Your task to perform on an android device: Is it going to rain this weekend? Image 0: 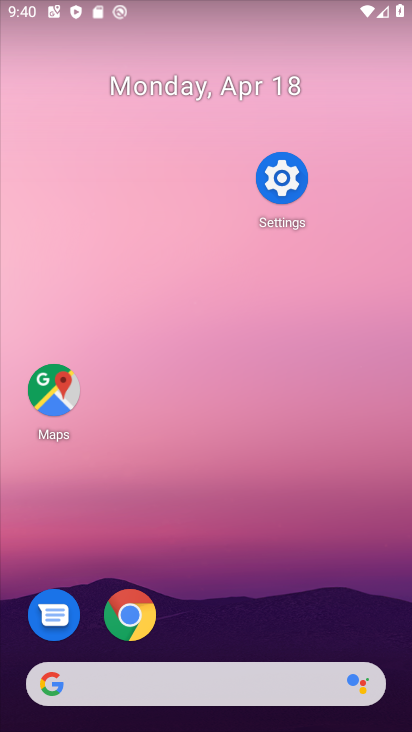
Step 0: drag from (42, 305) to (342, 570)
Your task to perform on an android device: Is it going to rain this weekend? Image 1: 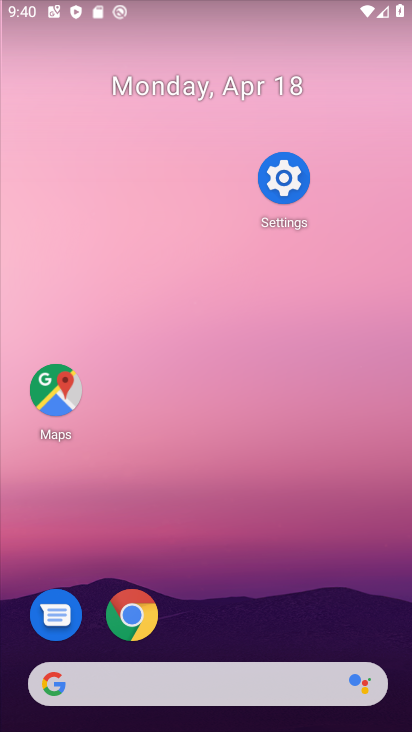
Step 1: drag from (53, 323) to (254, 81)
Your task to perform on an android device: Is it going to rain this weekend? Image 2: 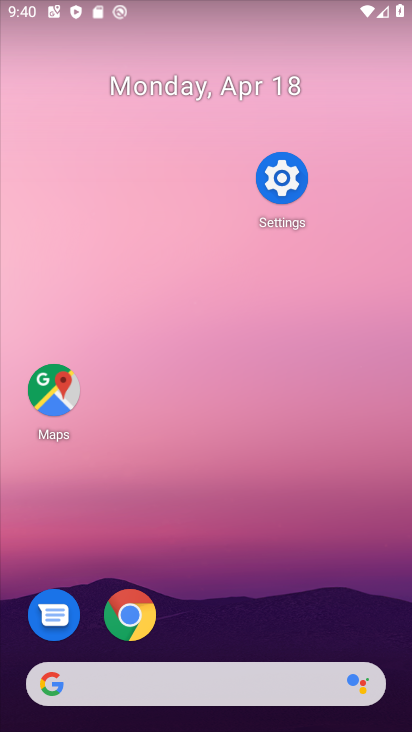
Step 2: drag from (264, 85) to (269, 230)
Your task to perform on an android device: Is it going to rain this weekend? Image 3: 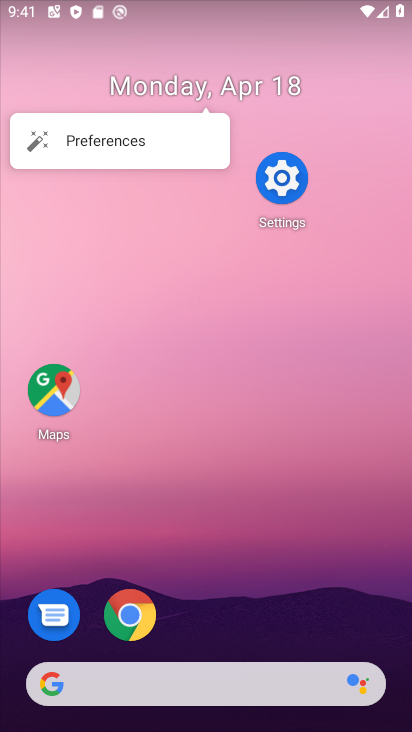
Step 3: drag from (267, 86) to (212, 499)
Your task to perform on an android device: Is it going to rain this weekend? Image 4: 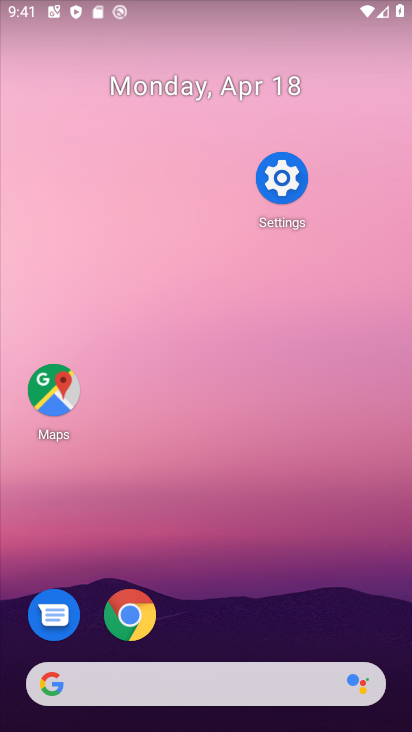
Step 4: drag from (35, 291) to (287, 358)
Your task to perform on an android device: Is it going to rain this weekend? Image 5: 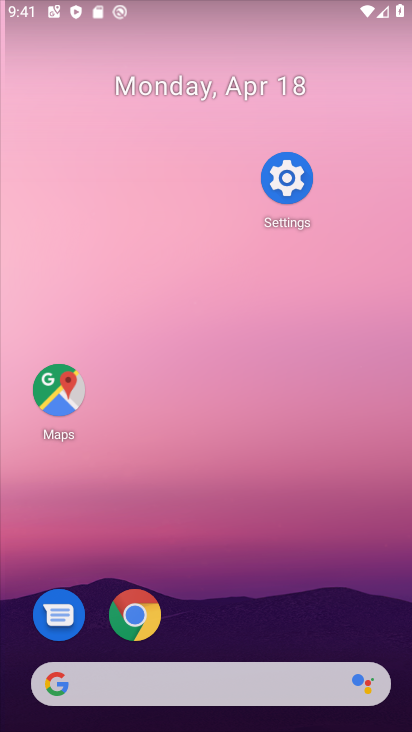
Step 5: drag from (59, 286) to (408, 342)
Your task to perform on an android device: Is it going to rain this weekend? Image 6: 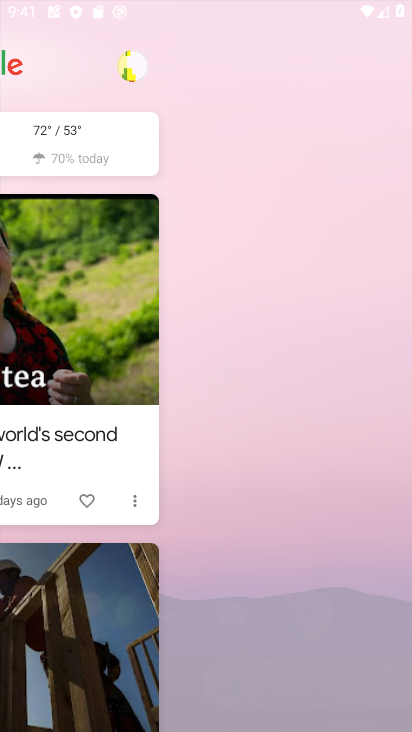
Step 6: drag from (127, 273) to (379, 299)
Your task to perform on an android device: Is it going to rain this weekend? Image 7: 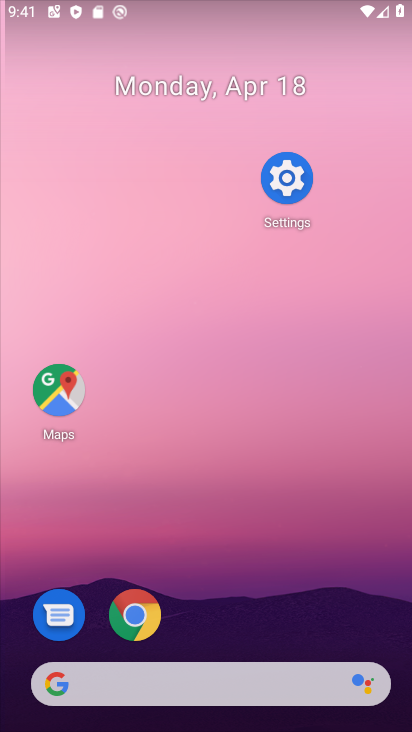
Step 7: drag from (102, 304) to (400, 316)
Your task to perform on an android device: Is it going to rain this weekend? Image 8: 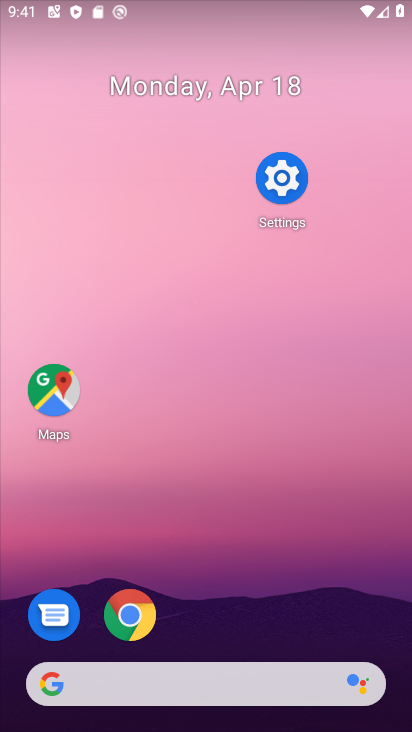
Step 8: drag from (34, 181) to (376, 263)
Your task to perform on an android device: Is it going to rain this weekend? Image 9: 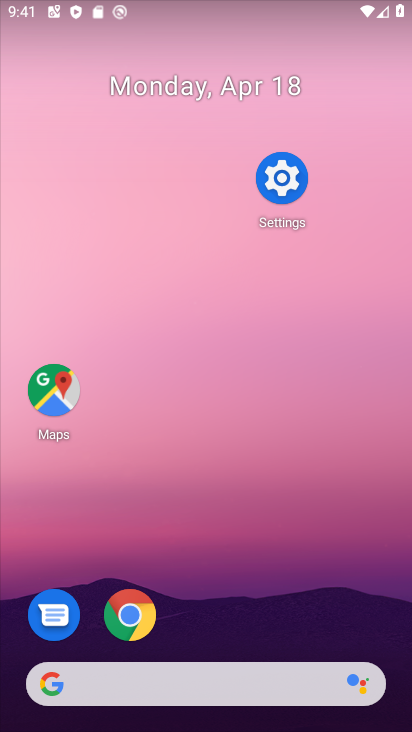
Step 9: drag from (34, 235) to (407, 442)
Your task to perform on an android device: Is it going to rain this weekend? Image 10: 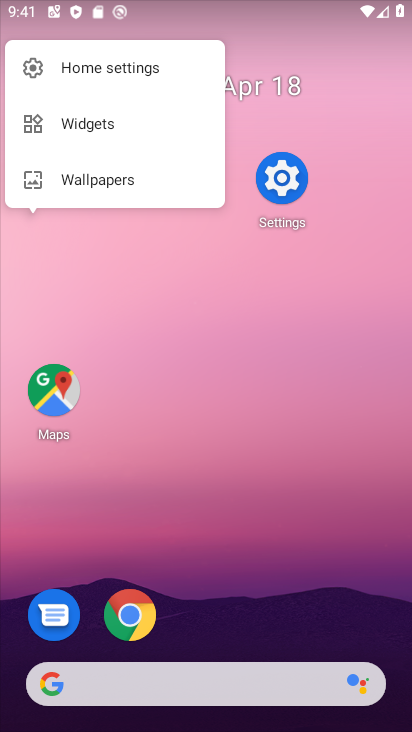
Step 10: click (299, 225)
Your task to perform on an android device: Is it going to rain this weekend? Image 11: 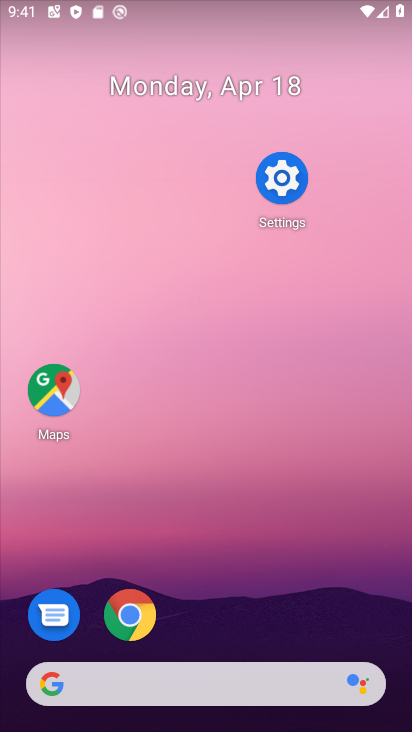
Step 11: drag from (302, 223) to (404, 242)
Your task to perform on an android device: Is it going to rain this weekend? Image 12: 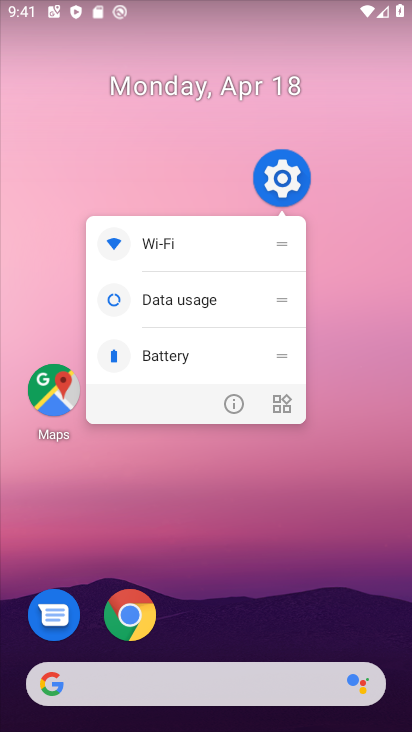
Step 12: click (409, 558)
Your task to perform on an android device: Is it going to rain this weekend? Image 13: 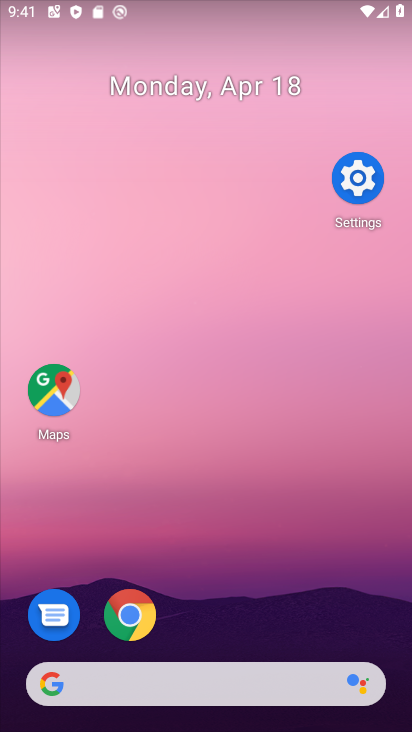
Step 13: press home button
Your task to perform on an android device: Is it going to rain this weekend? Image 14: 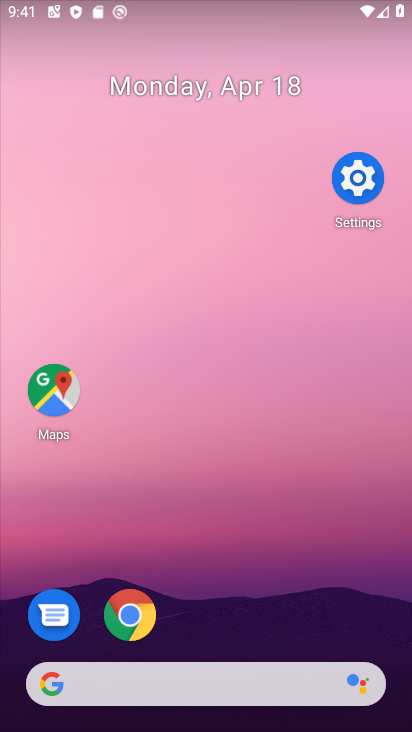
Step 14: drag from (36, 275) to (373, 385)
Your task to perform on an android device: Is it going to rain this weekend? Image 15: 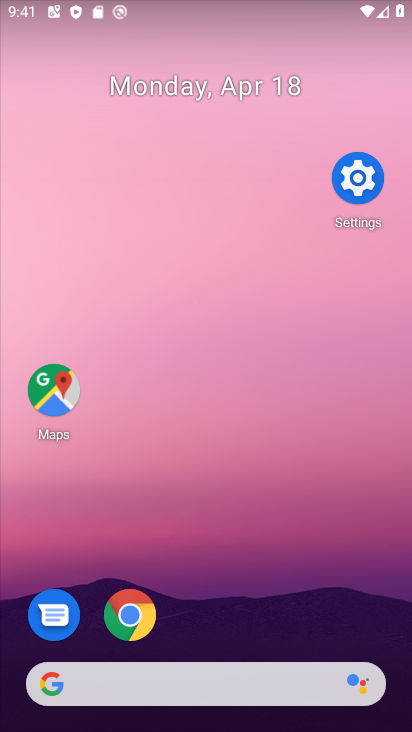
Step 15: click (365, 247)
Your task to perform on an android device: Is it going to rain this weekend? Image 16: 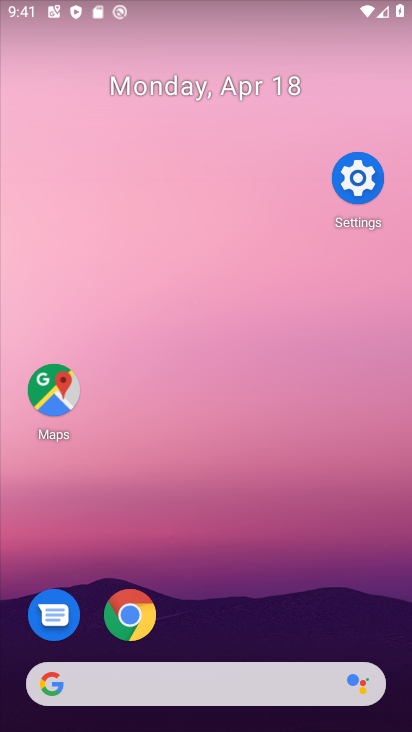
Step 16: drag from (21, 210) to (377, 258)
Your task to perform on an android device: Is it going to rain this weekend? Image 17: 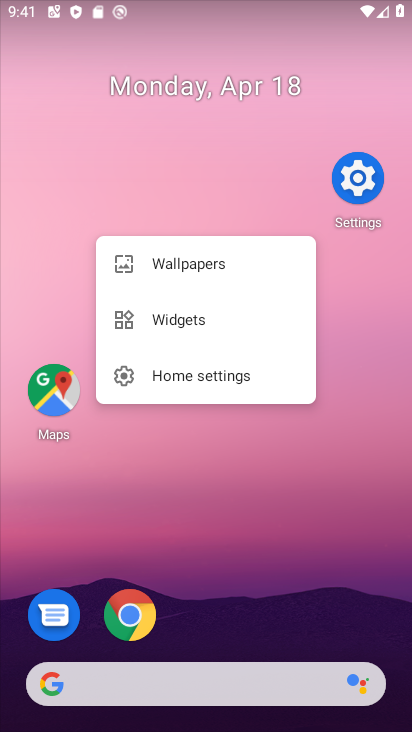
Step 17: drag from (37, 225) to (395, 229)
Your task to perform on an android device: Is it going to rain this weekend? Image 18: 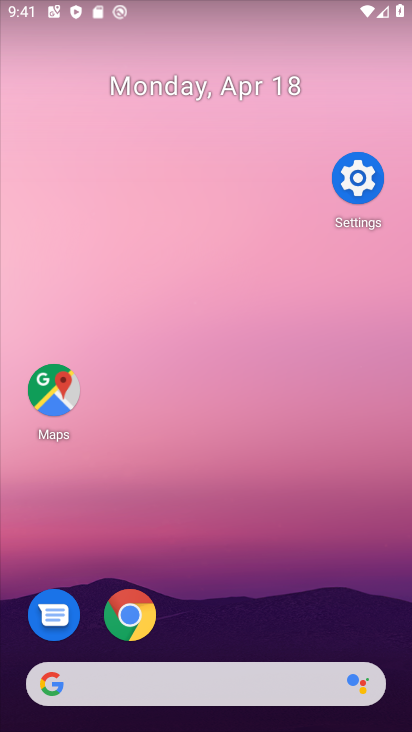
Step 18: drag from (40, 231) to (405, 277)
Your task to perform on an android device: Is it going to rain this weekend? Image 19: 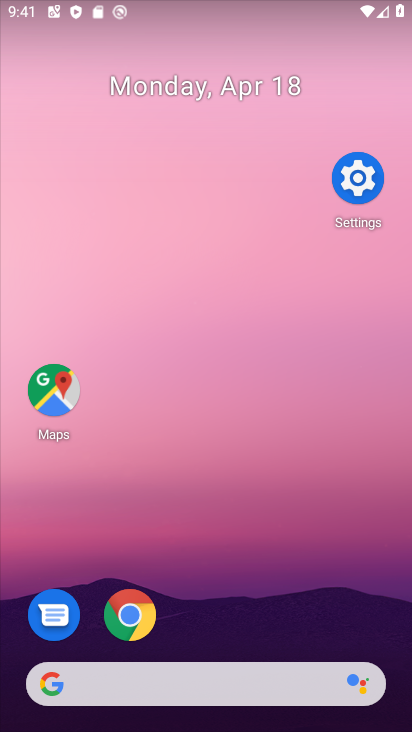
Step 19: drag from (44, 227) to (323, 285)
Your task to perform on an android device: Is it going to rain this weekend? Image 20: 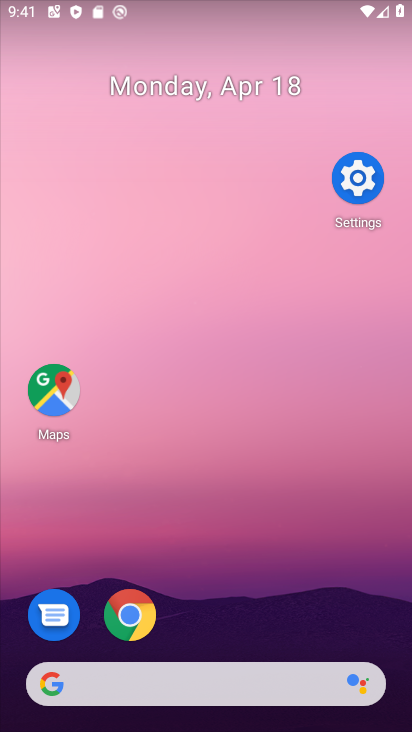
Step 20: drag from (18, 234) to (354, 296)
Your task to perform on an android device: Is it going to rain this weekend? Image 21: 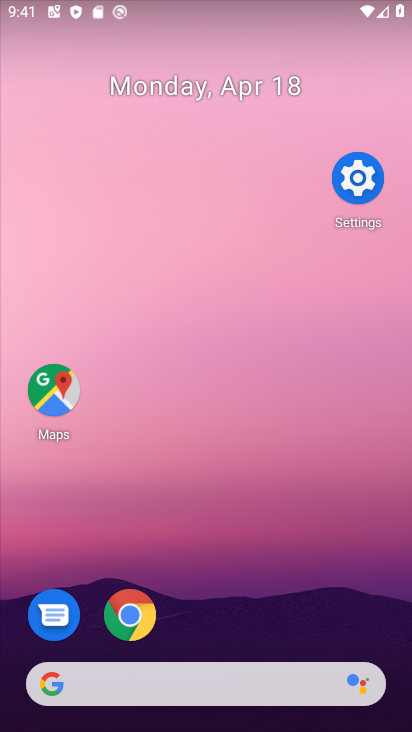
Step 21: drag from (75, 270) to (398, 293)
Your task to perform on an android device: Is it going to rain this weekend? Image 22: 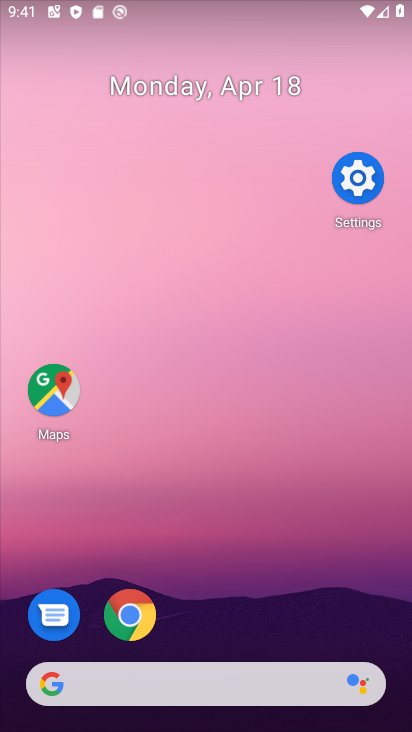
Step 22: drag from (46, 313) to (399, 247)
Your task to perform on an android device: Is it going to rain this weekend? Image 23: 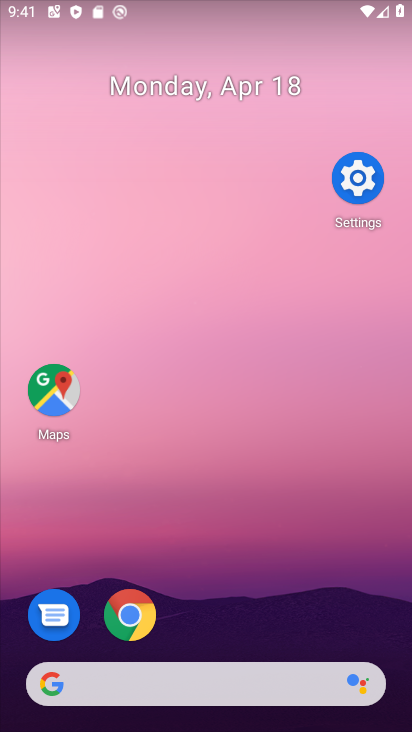
Step 23: drag from (16, 267) to (404, 246)
Your task to perform on an android device: Is it going to rain this weekend? Image 24: 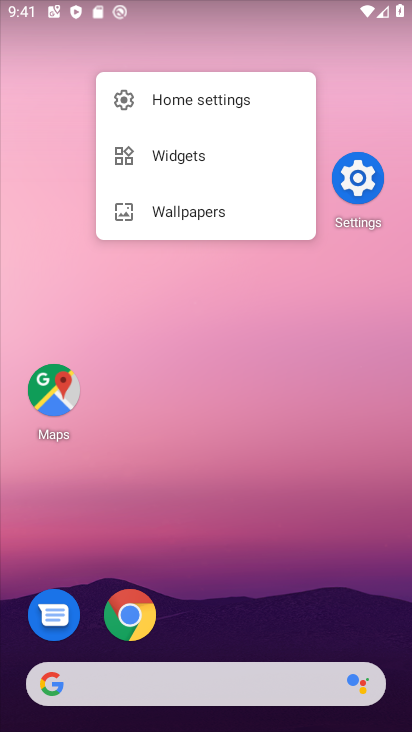
Step 24: drag from (34, 270) to (346, 254)
Your task to perform on an android device: Is it going to rain this weekend? Image 25: 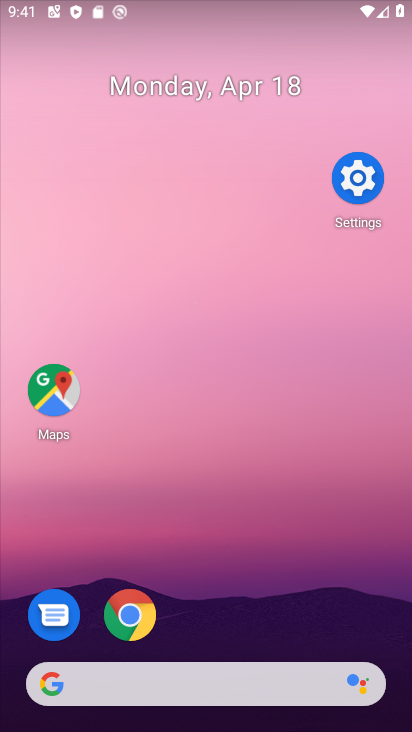
Step 25: drag from (113, 505) to (105, 157)
Your task to perform on an android device: Is it going to rain this weekend? Image 26: 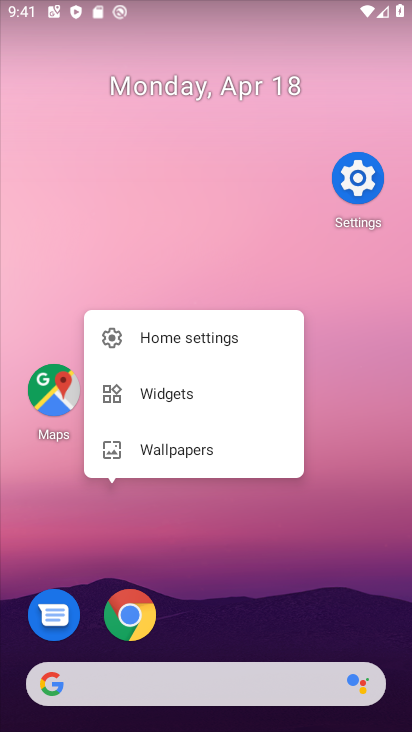
Step 26: drag from (34, 237) to (306, 250)
Your task to perform on an android device: Is it going to rain this weekend? Image 27: 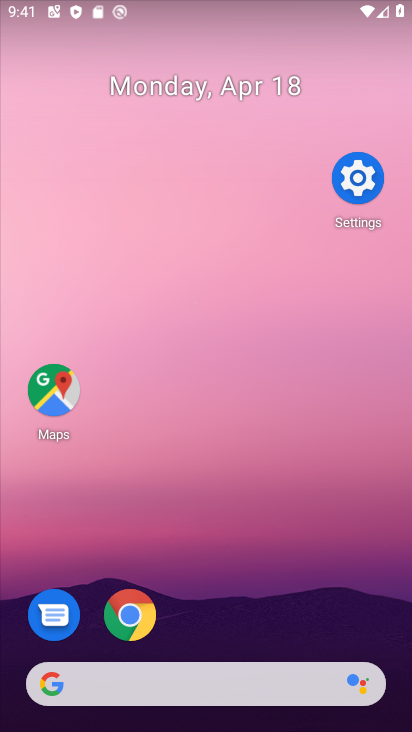
Step 27: drag from (75, 214) to (367, 231)
Your task to perform on an android device: Is it going to rain this weekend? Image 28: 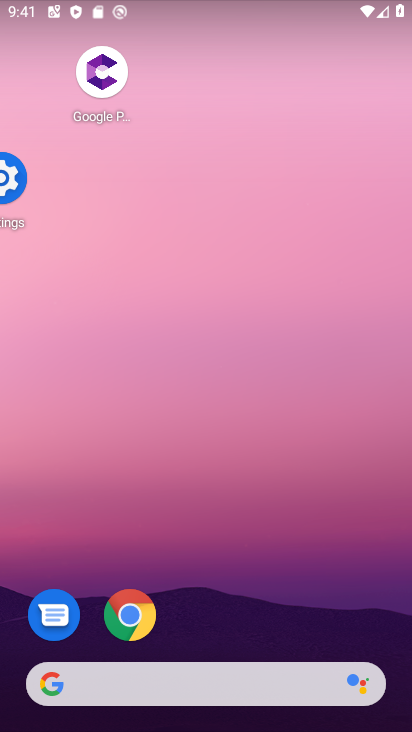
Step 28: drag from (46, 273) to (410, 329)
Your task to perform on an android device: Is it going to rain this weekend? Image 29: 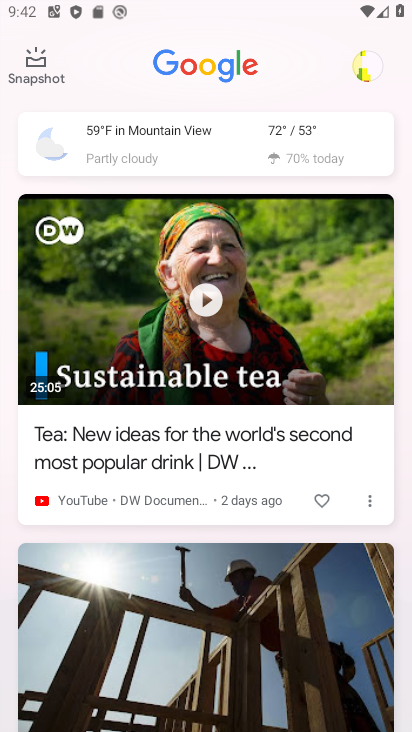
Step 29: click (305, 143)
Your task to perform on an android device: Is it going to rain this weekend? Image 30: 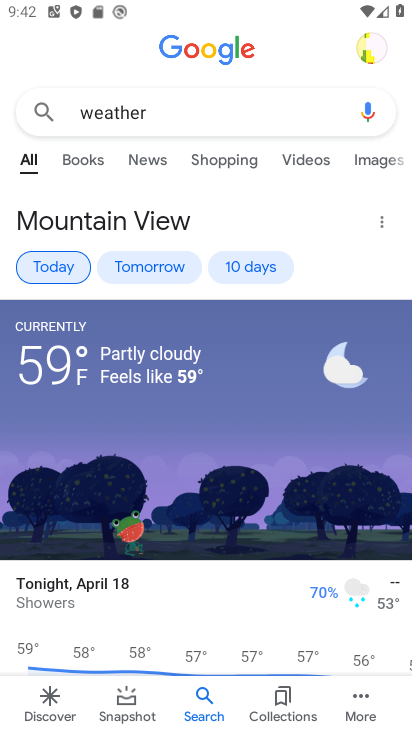
Step 30: click (244, 263)
Your task to perform on an android device: Is it going to rain this weekend? Image 31: 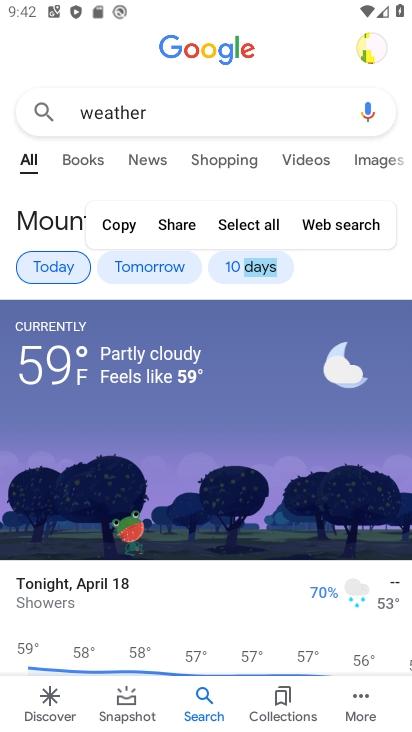
Step 31: click (246, 264)
Your task to perform on an android device: Is it going to rain this weekend? Image 32: 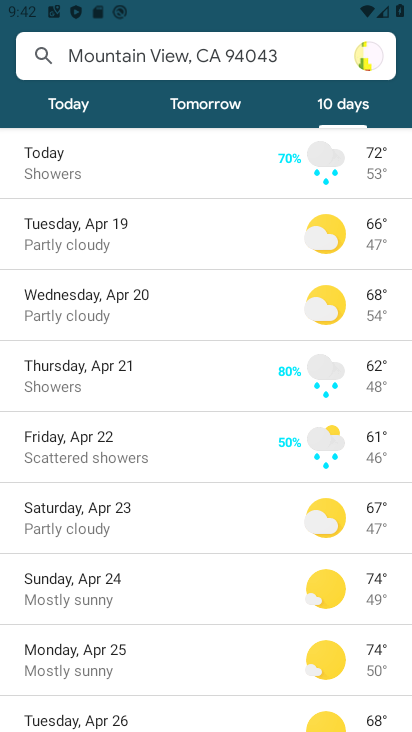
Step 32: task complete